Your task to perform on an android device: toggle translation in the chrome app Image 0: 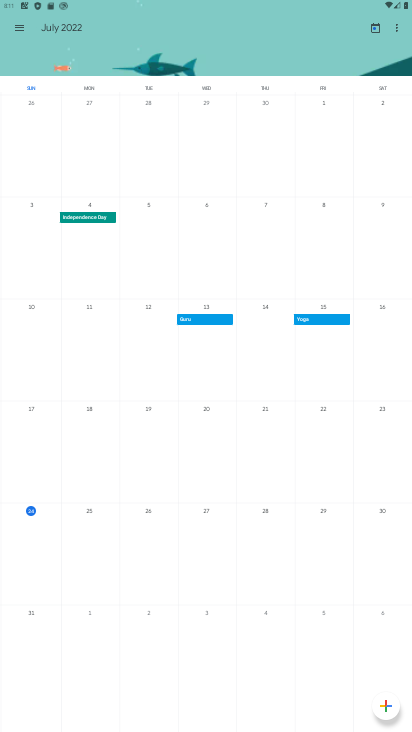
Step 0: press home button
Your task to perform on an android device: toggle translation in the chrome app Image 1: 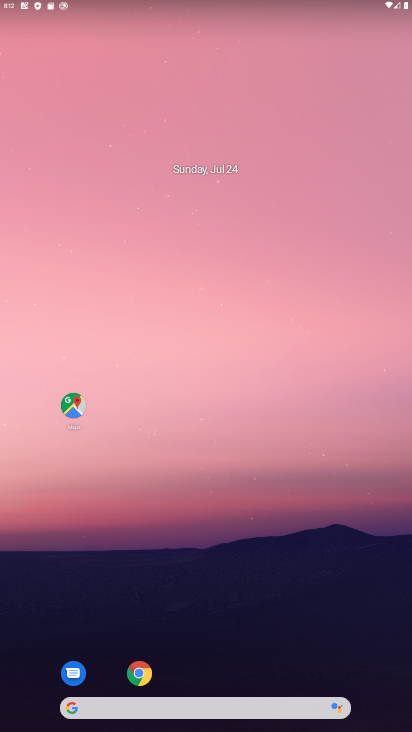
Step 1: click (352, 458)
Your task to perform on an android device: toggle translation in the chrome app Image 2: 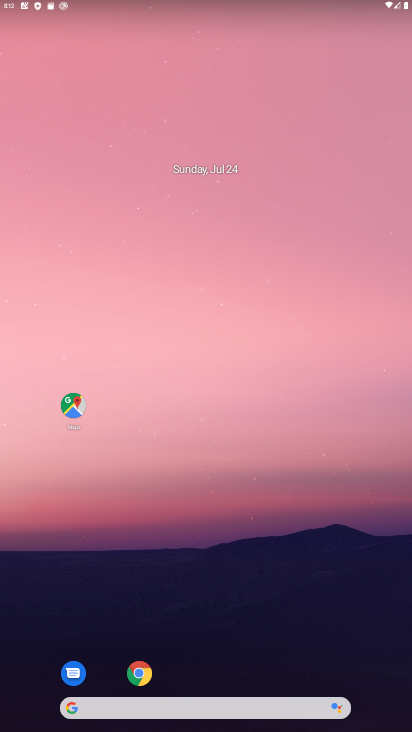
Step 2: click (140, 680)
Your task to perform on an android device: toggle translation in the chrome app Image 3: 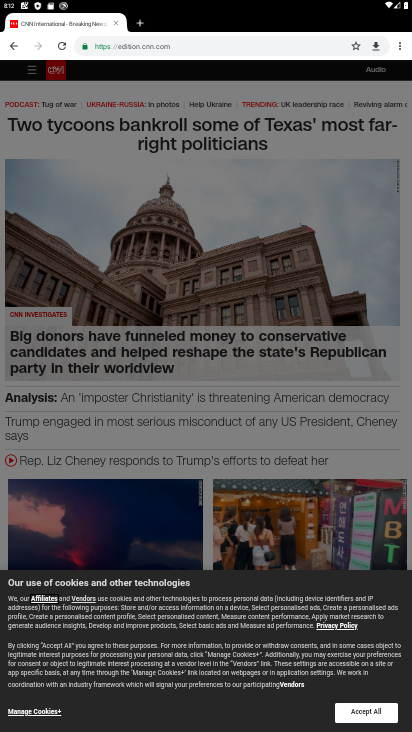
Step 3: click (401, 47)
Your task to perform on an android device: toggle translation in the chrome app Image 4: 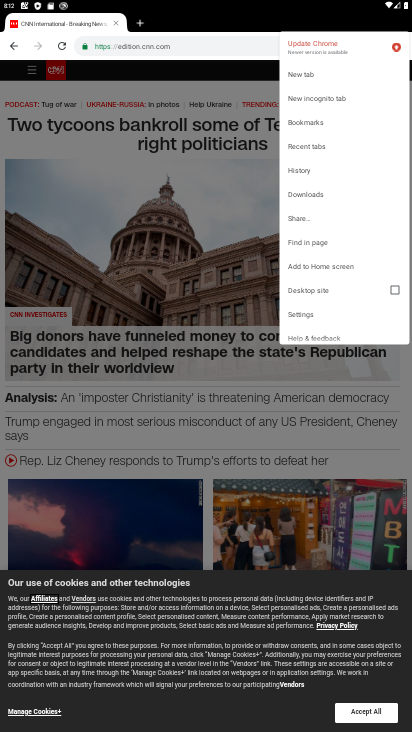
Step 4: click (298, 313)
Your task to perform on an android device: toggle translation in the chrome app Image 5: 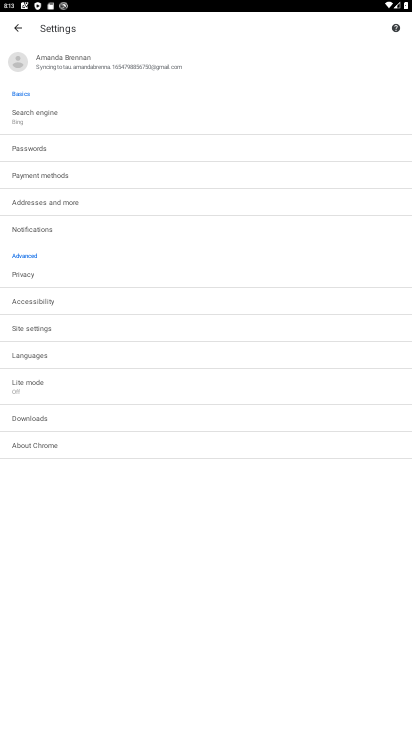
Step 5: click (20, 363)
Your task to perform on an android device: toggle translation in the chrome app Image 6: 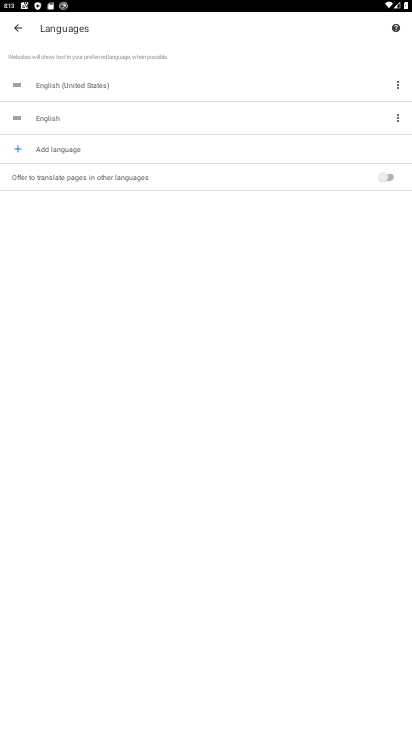
Step 6: click (398, 183)
Your task to perform on an android device: toggle translation in the chrome app Image 7: 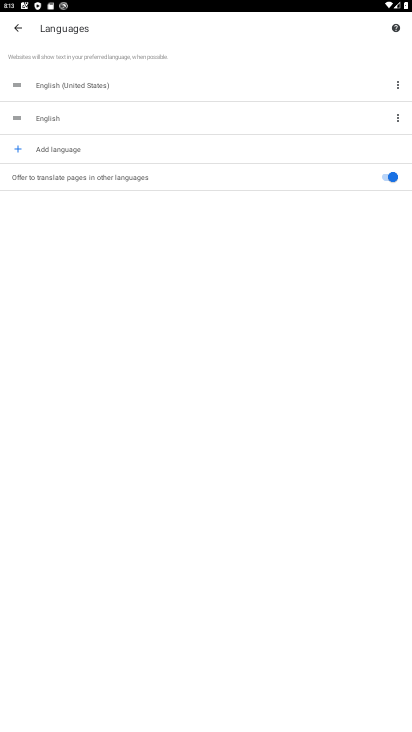
Step 7: task complete